Your task to perform on an android device: Open Reddit.com Image 0: 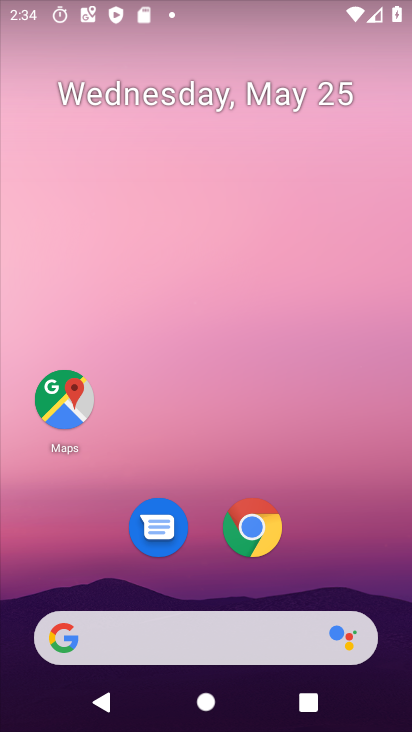
Step 0: drag from (236, 577) to (280, 77)
Your task to perform on an android device: Open Reddit.com Image 1: 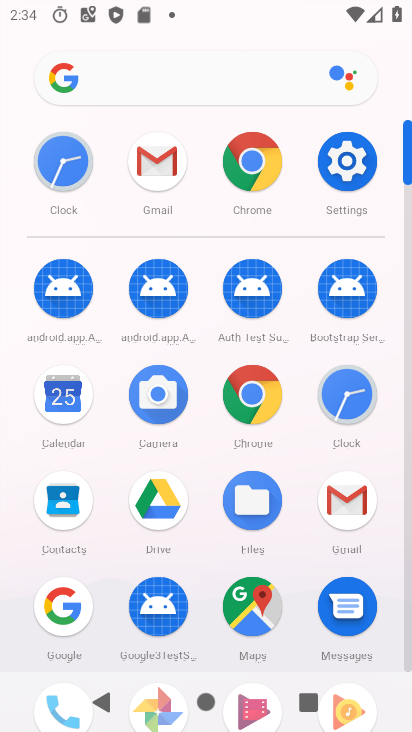
Step 1: click (170, 82)
Your task to perform on an android device: Open Reddit.com Image 2: 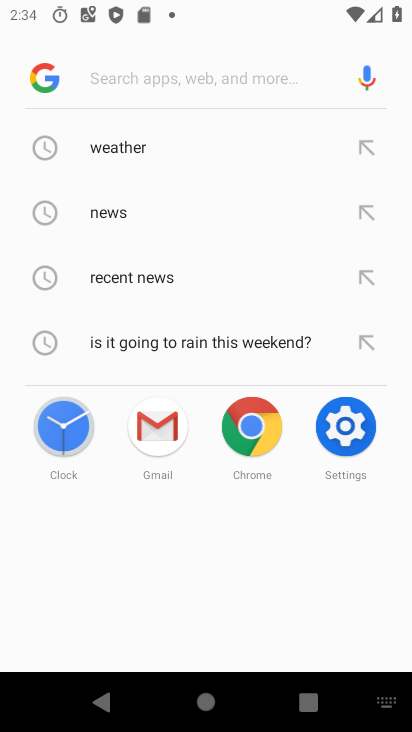
Step 2: type "reddit.com"
Your task to perform on an android device: Open Reddit.com Image 3: 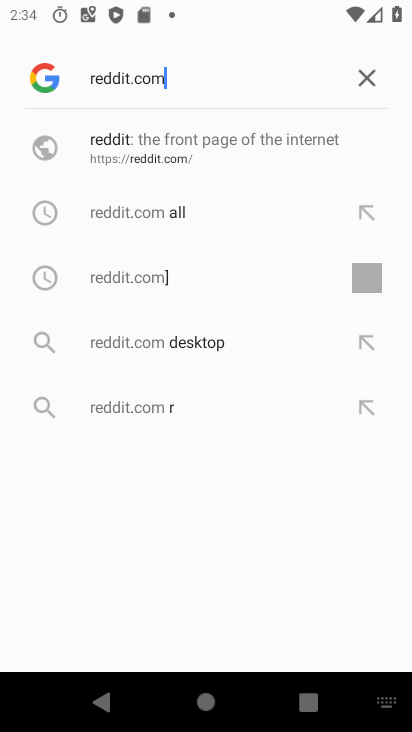
Step 3: click (209, 149)
Your task to perform on an android device: Open Reddit.com Image 4: 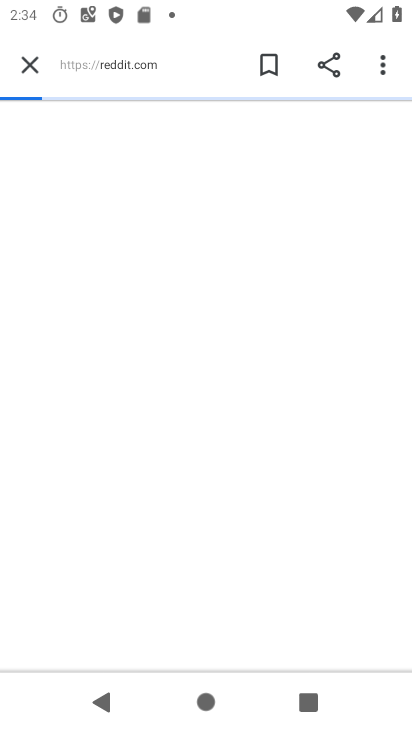
Step 4: task complete